Your task to perform on an android device: Do I have any events this weekend? Image 0: 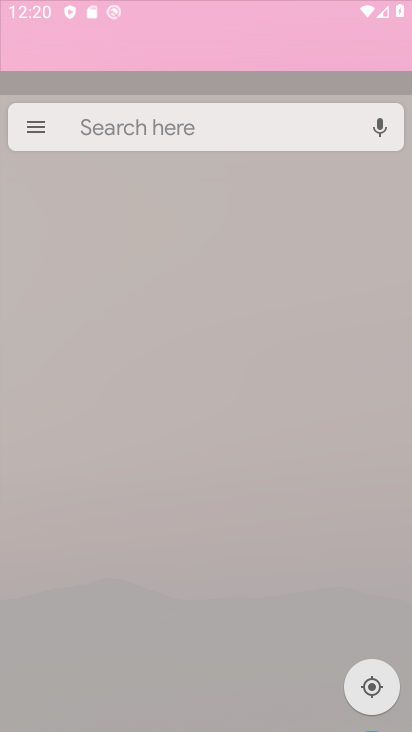
Step 0: click (306, 64)
Your task to perform on an android device: Do I have any events this weekend? Image 1: 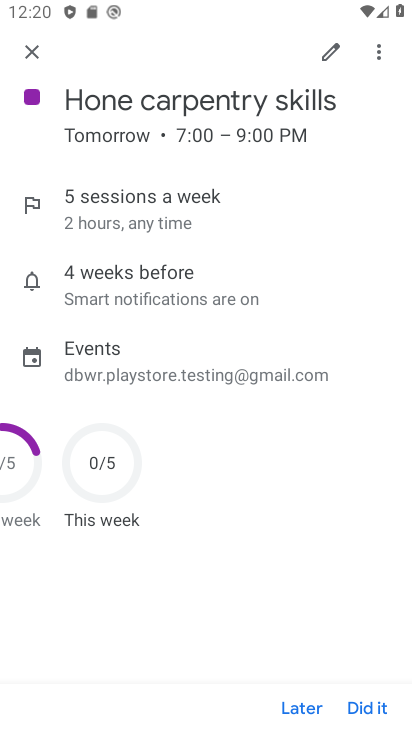
Step 1: click (26, 52)
Your task to perform on an android device: Do I have any events this weekend? Image 2: 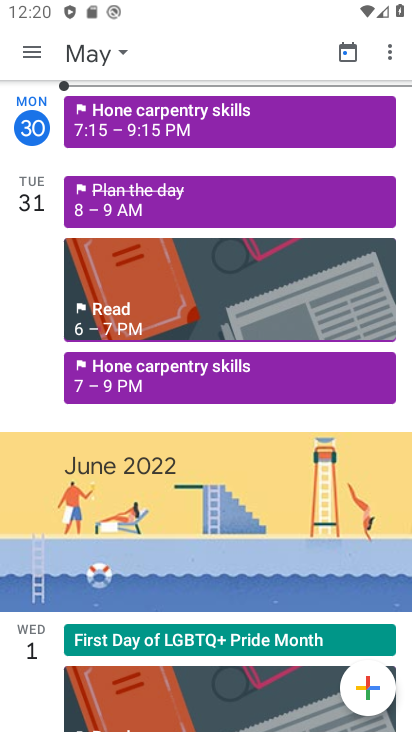
Step 2: drag from (173, 658) to (280, 78)
Your task to perform on an android device: Do I have any events this weekend? Image 3: 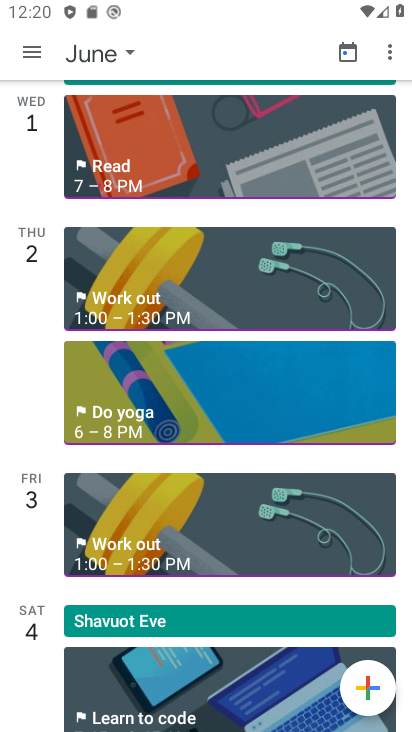
Step 3: drag from (152, 559) to (216, 168)
Your task to perform on an android device: Do I have any events this weekend? Image 4: 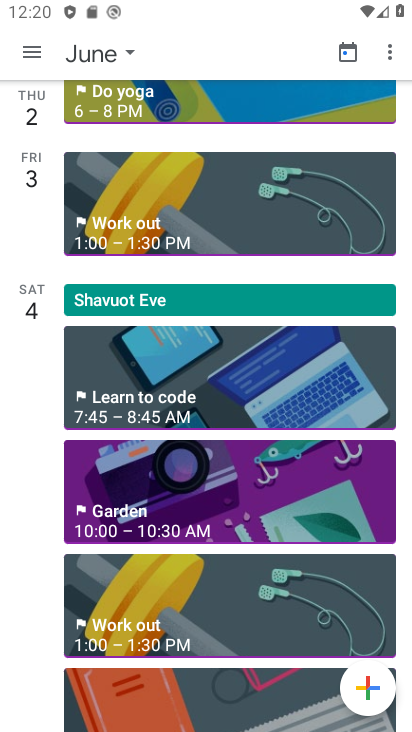
Step 4: drag from (182, 591) to (267, 107)
Your task to perform on an android device: Do I have any events this weekend? Image 5: 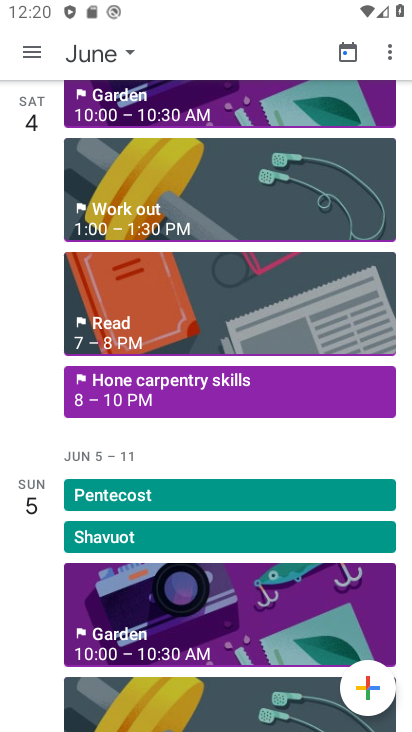
Step 5: click (128, 498)
Your task to perform on an android device: Do I have any events this weekend? Image 6: 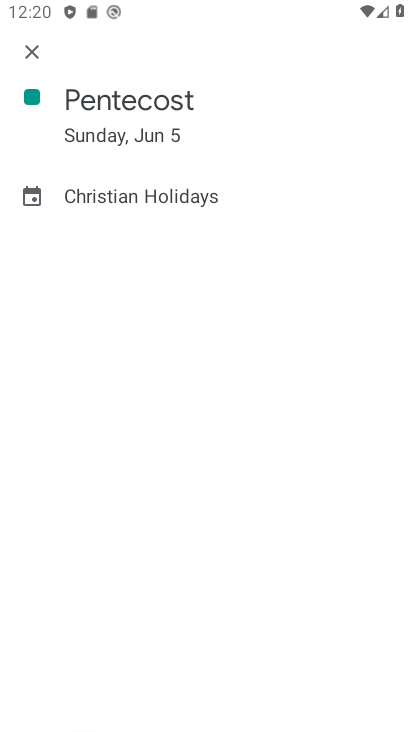
Step 6: task complete